Your task to perform on an android device: check battery use Image 0: 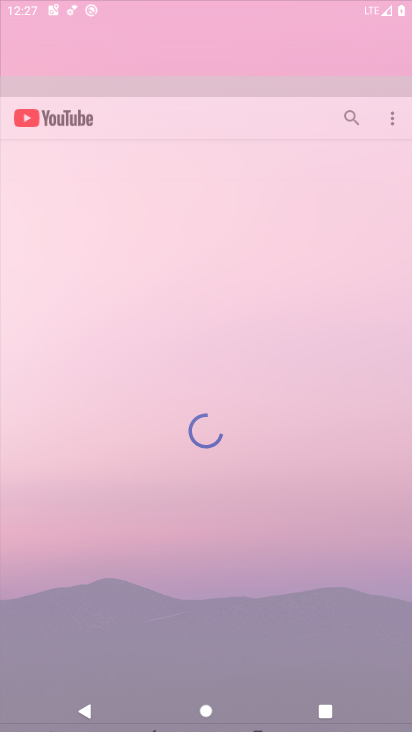
Step 0: click (285, 42)
Your task to perform on an android device: check battery use Image 1: 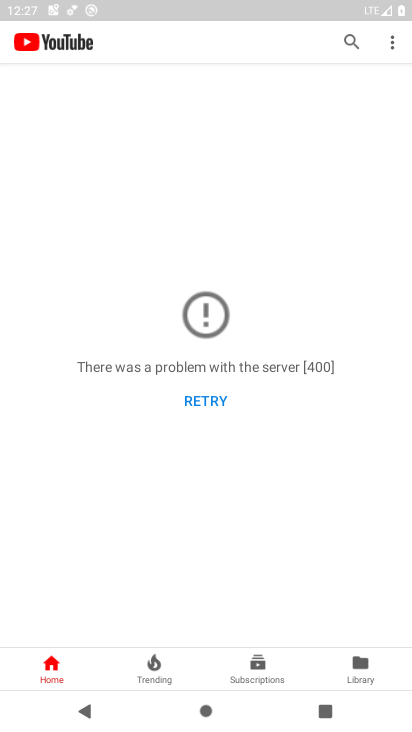
Step 1: click (206, 407)
Your task to perform on an android device: check battery use Image 2: 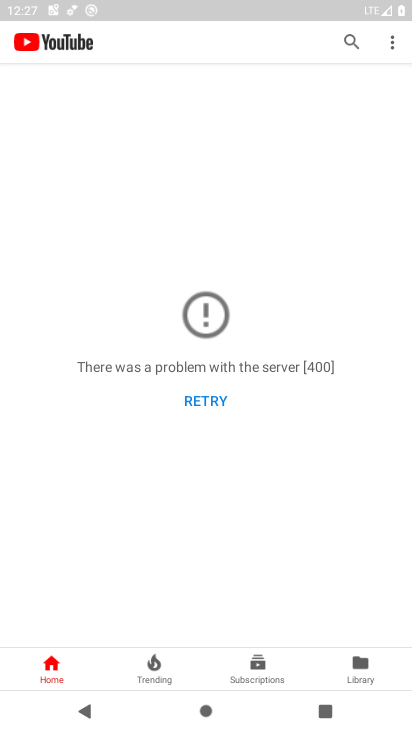
Step 2: press home button
Your task to perform on an android device: check battery use Image 3: 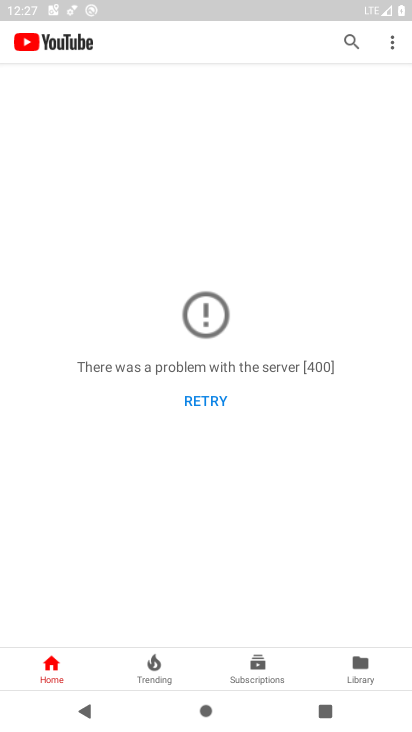
Step 3: drag from (233, 590) to (355, 2)
Your task to perform on an android device: check battery use Image 4: 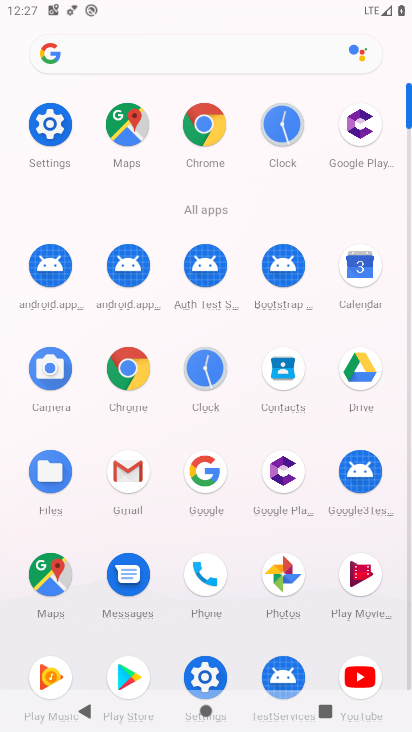
Step 4: click (24, 123)
Your task to perform on an android device: check battery use Image 5: 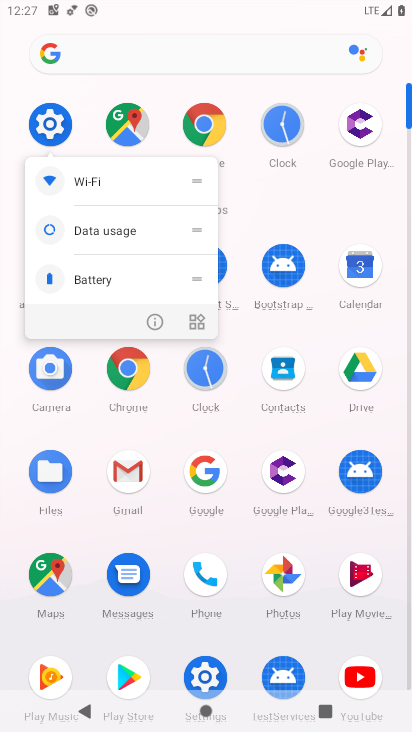
Step 5: click (160, 316)
Your task to perform on an android device: check battery use Image 6: 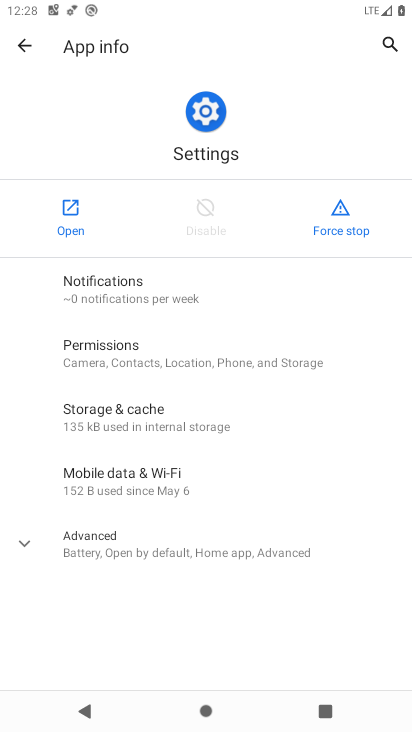
Step 6: click (80, 207)
Your task to perform on an android device: check battery use Image 7: 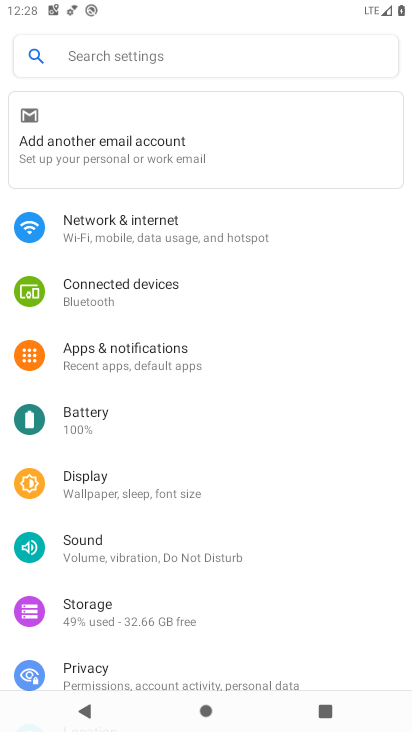
Step 7: click (135, 405)
Your task to perform on an android device: check battery use Image 8: 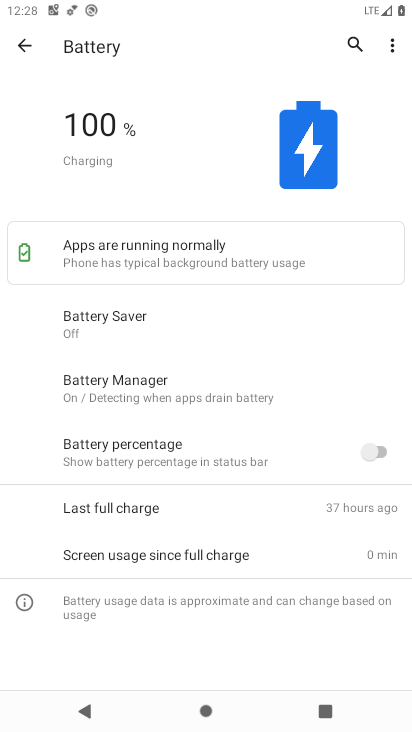
Step 8: drag from (122, 561) to (275, 48)
Your task to perform on an android device: check battery use Image 9: 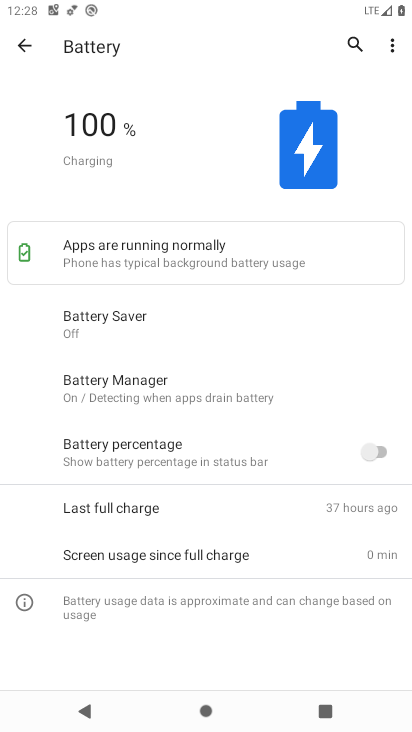
Step 9: click (380, 37)
Your task to perform on an android device: check battery use Image 10: 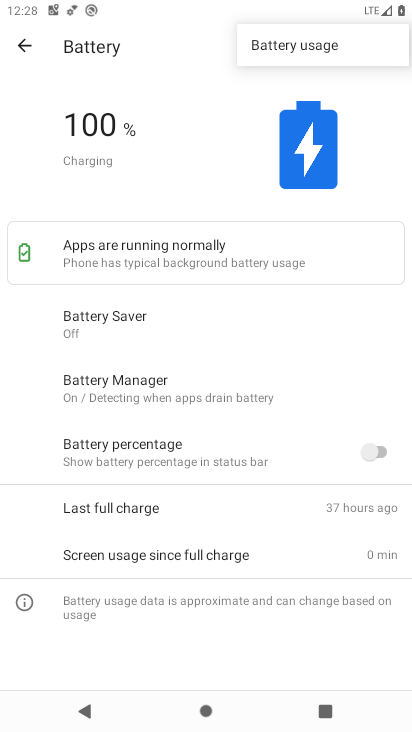
Step 10: click (302, 63)
Your task to perform on an android device: check battery use Image 11: 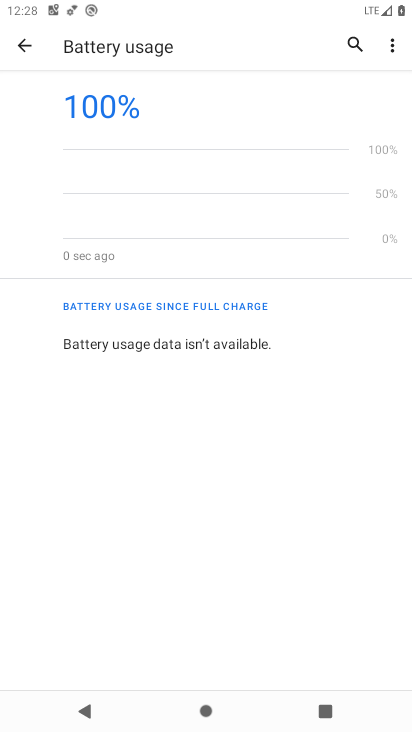
Step 11: task complete